Your task to perform on an android device: Search for pizza restaurants on Maps Image 0: 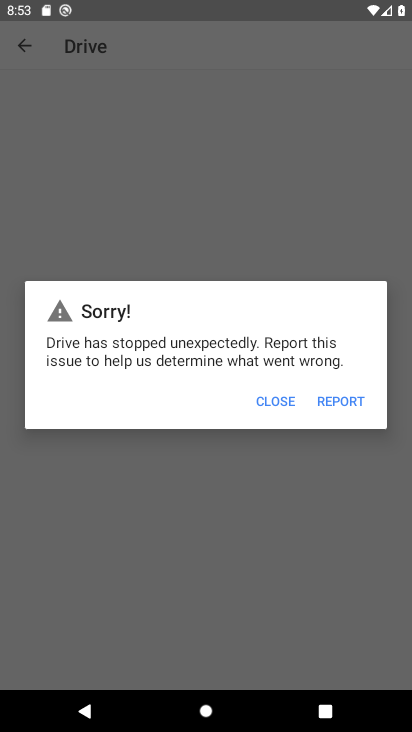
Step 0: drag from (221, 624) to (229, 85)
Your task to perform on an android device: Search for pizza restaurants on Maps Image 1: 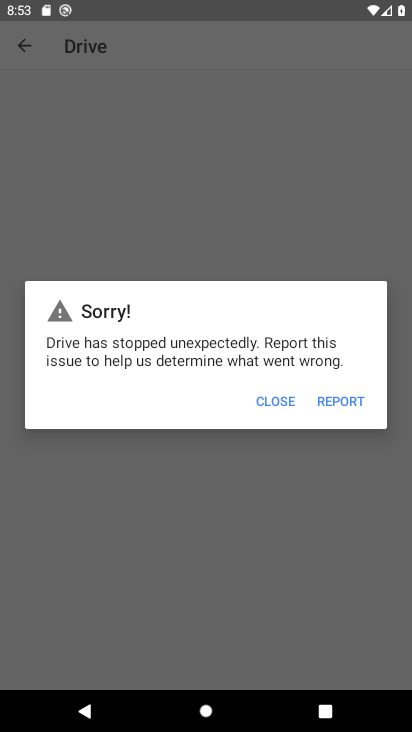
Step 1: press home button
Your task to perform on an android device: Search for pizza restaurants on Maps Image 2: 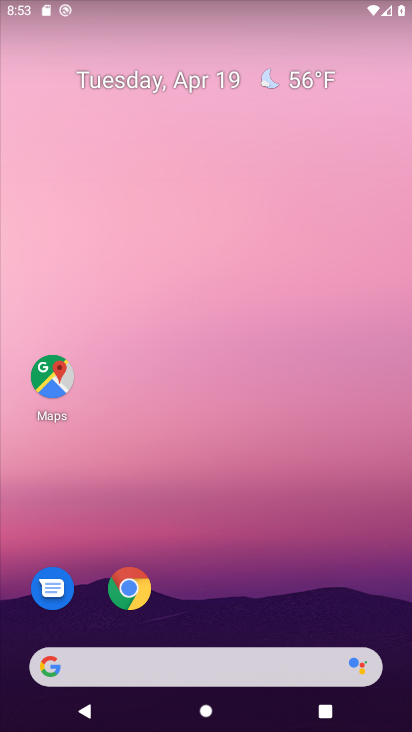
Step 2: click (51, 369)
Your task to perform on an android device: Search for pizza restaurants on Maps Image 3: 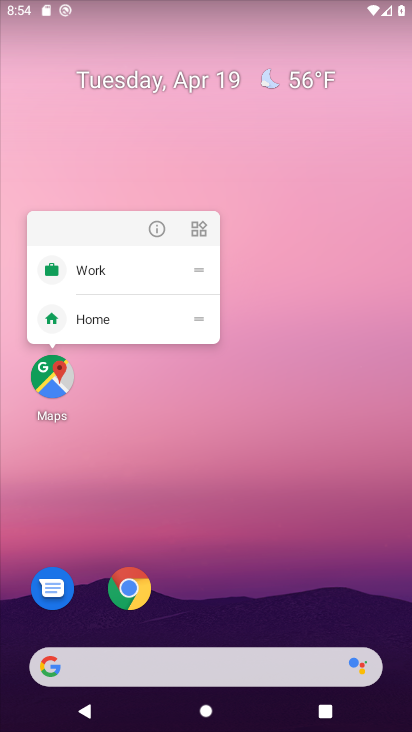
Step 3: click (52, 373)
Your task to perform on an android device: Search for pizza restaurants on Maps Image 4: 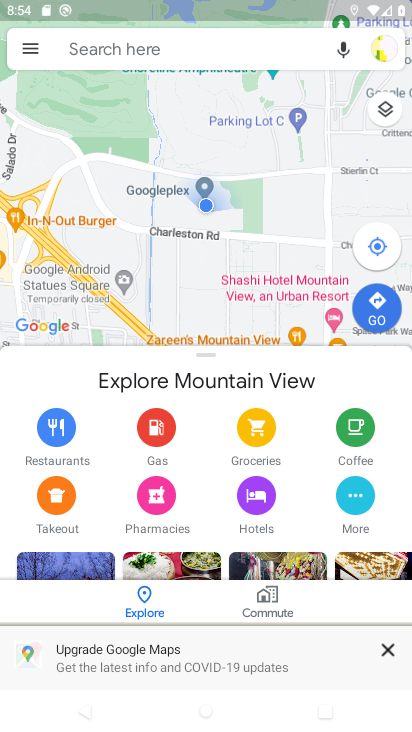
Step 4: click (94, 42)
Your task to perform on an android device: Search for pizza restaurants on Maps Image 5: 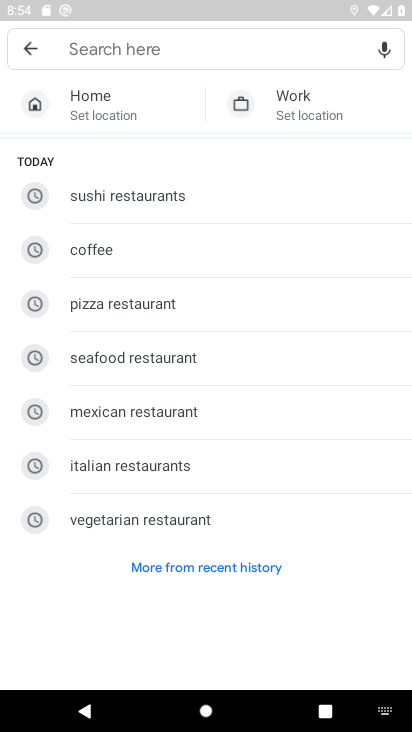
Step 5: click (108, 304)
Your task to perform on an android device: Search for pizza restaurants on Maps Image 6: 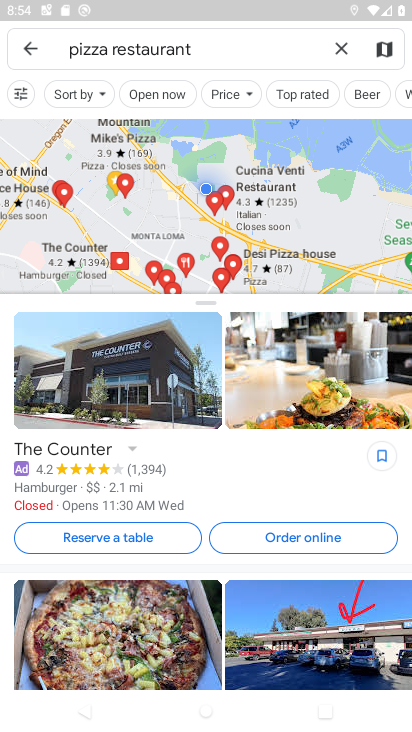
Step 6: task complete